Your task to perform on an android device: set the stopwatch Image 0: 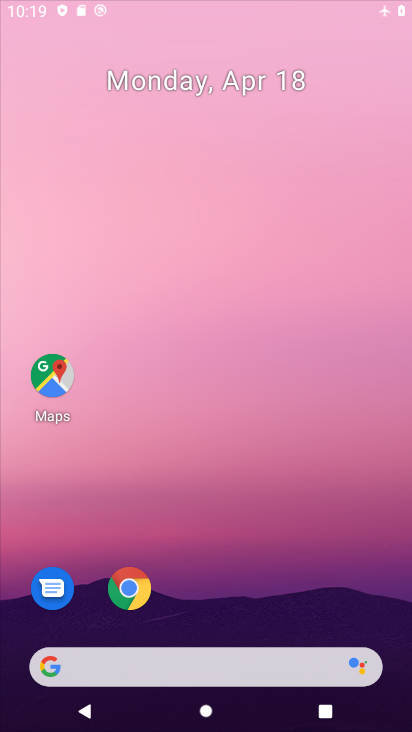
Step 0: click (284, 24)
Your task to perform on an android device: set the stopwatch Image 1: 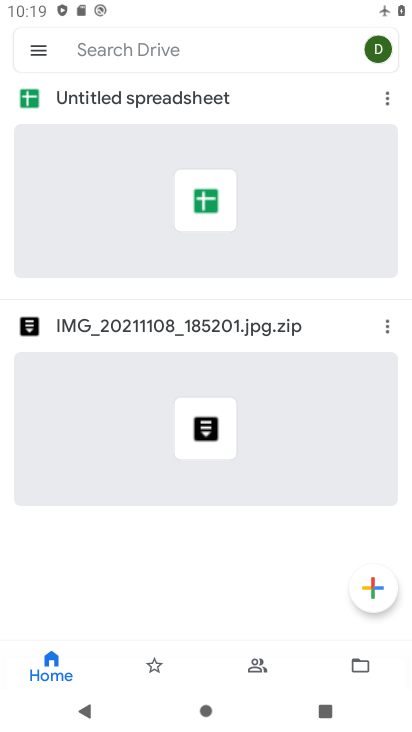
Step 1: press back button
Your task to perform on an android device: set the stopwatch Image 2: 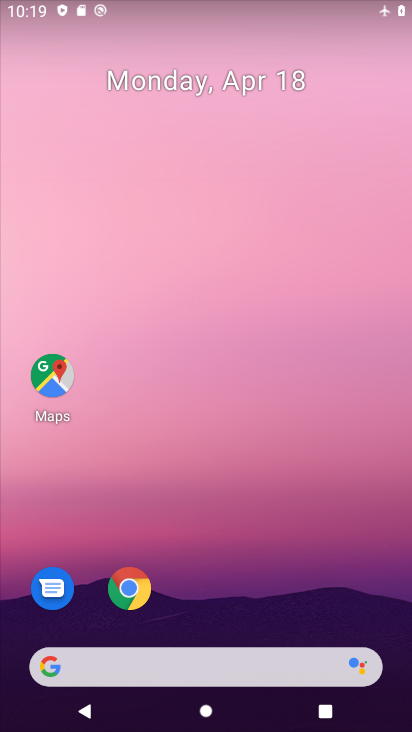
Step 2: drag from (368, 588) to (208, 73)
Your task to perform on an android device: set the stopwatch Image 3: 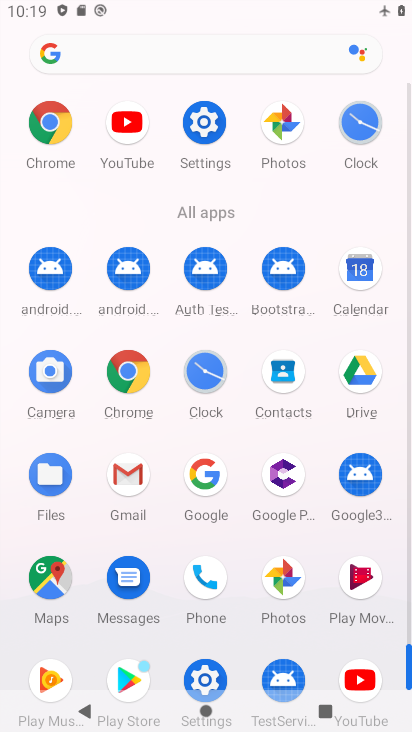
Step 3: click (358, 120)
Your task to perform on an android device: set the stopwatch Image 4: 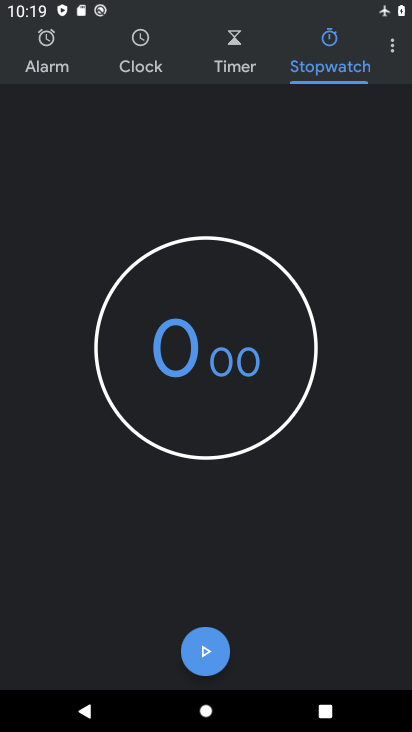
Step 4: click (224, 27)
Your task to perform on an android device: set the stopwatch Image 5: 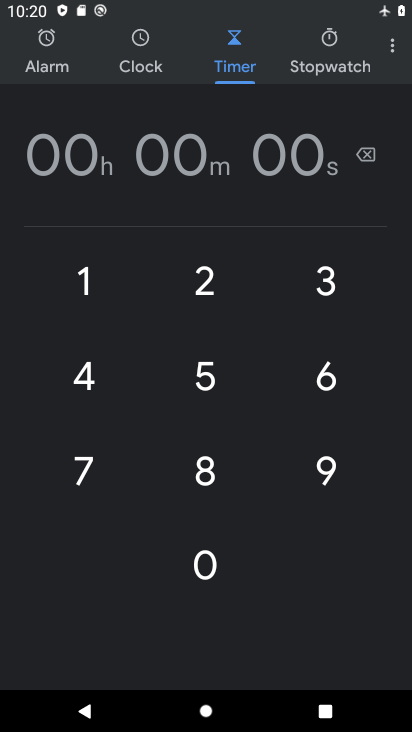
Step 5: click (202, 264)
Your task to perform on an android device: set the stopwatch Image 6: 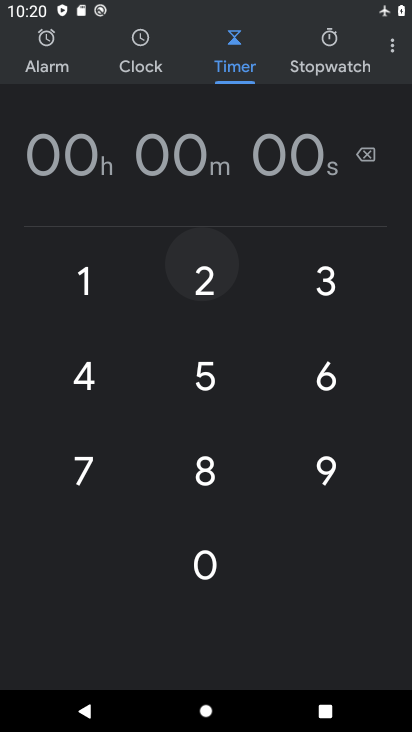
Step 6: click (202, 388)
Your task to perform on an android device: set the stopwatch Image 7: 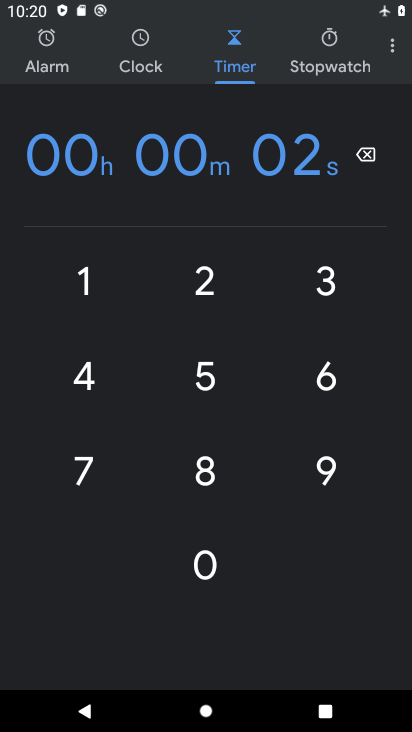
Step 7: click (308, 370)
Your task to perform on an android device: set the stopwatch Image 8: 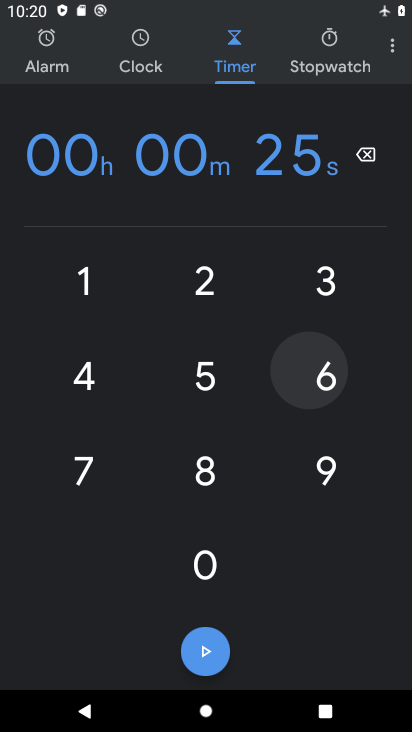
Step 8: click (352, 471)
Your task to perform on an android device: set the stopwatch Image 9: 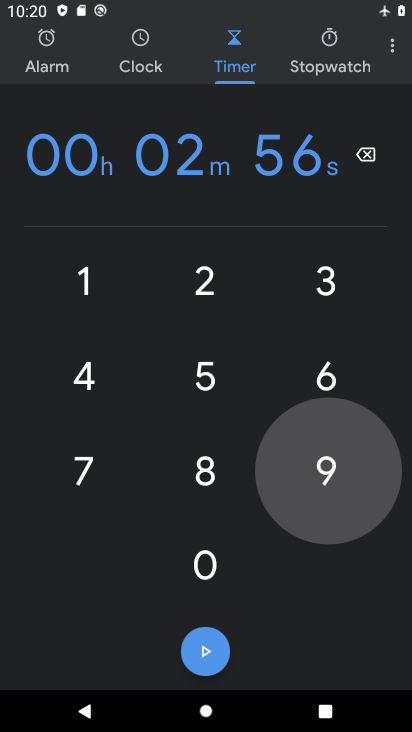
Step 9: click (176, 473)
Your task to perform on an android device: set the stopwatch Image 10: 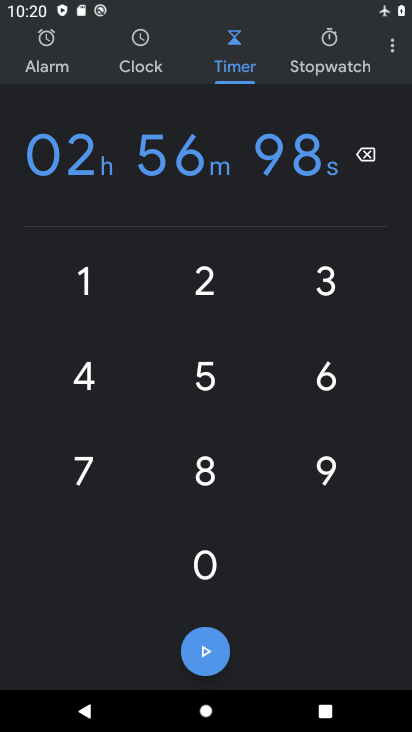
Step 10: click (226, 635)
Your task to perform on an android device: set the stopwatch Image 11: 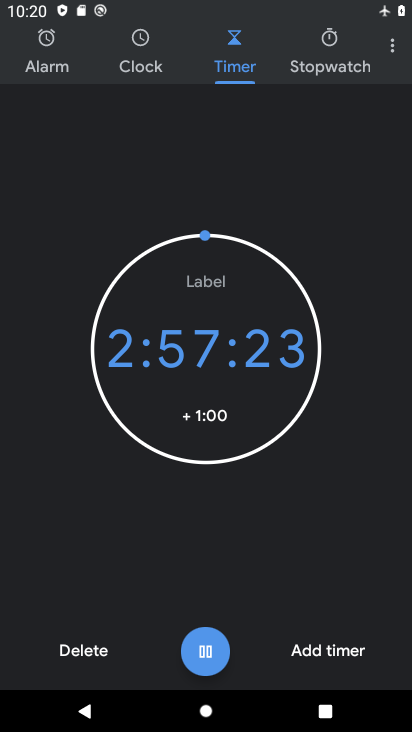
Step 11: task complete